Your task to perform on an android device: turn on javascript in the chrome app Image 0: 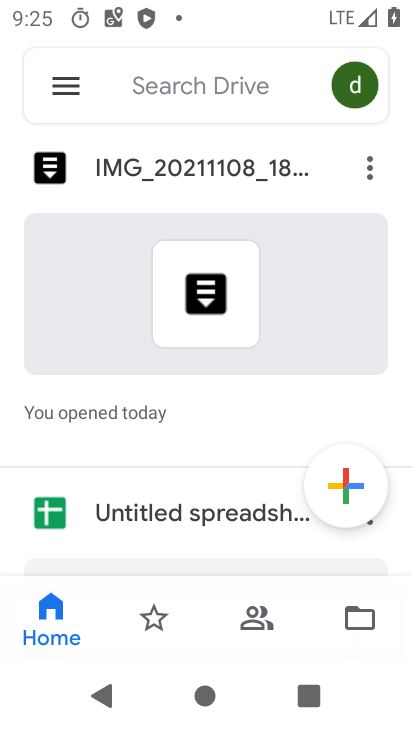
Step 0: press home button
Your task to perform on an android device: turn on javascript in the chrome app Image 1: 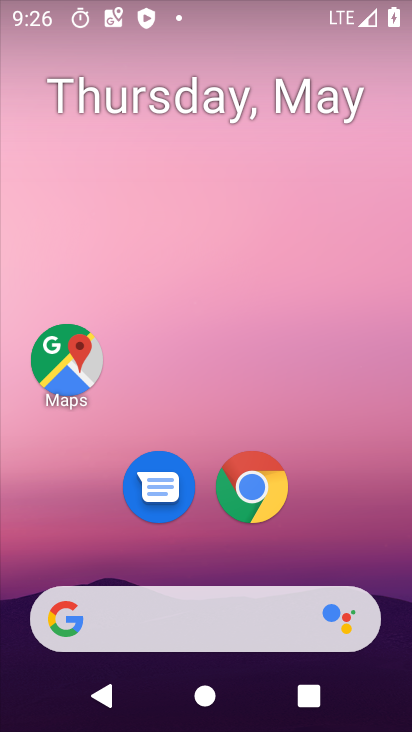
Step 1: drag from (159, 598) to (263, 140)
Your task to perform on an android device: turn on javascript in the chrome app Image 2: 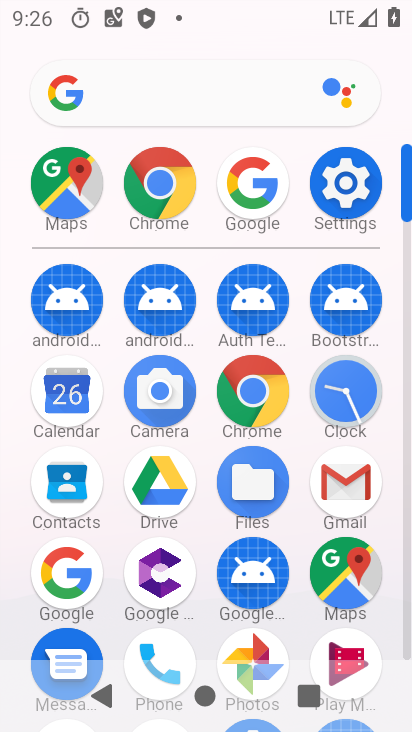
Step 2: click (164, 195)
Your task to perform on an android device: turn on javascript in the chrome app Image 3: 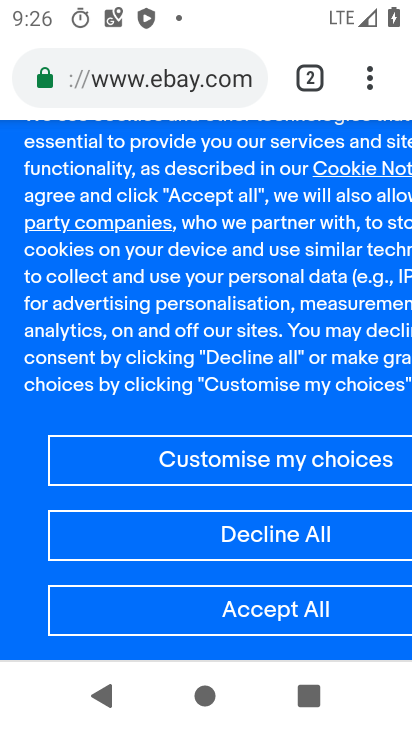
Step 3: click (378, 77)
Your task to perform on an android device: turn on javascript in the chrome app Image 4: 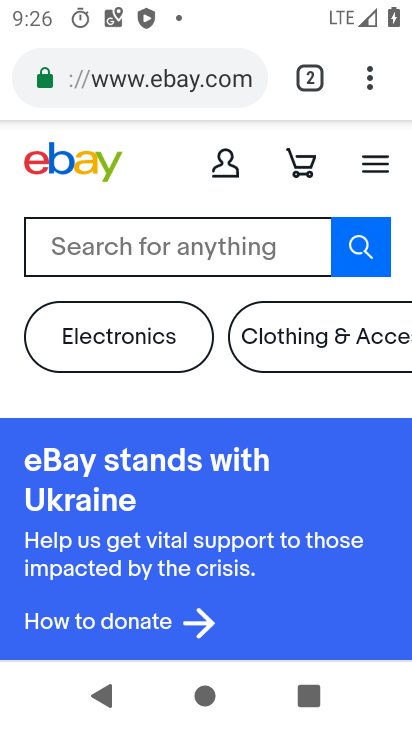
Step 4: click (378, 74)
Your task to perform on an android device: turn on javascript in the chrome app Image 5: 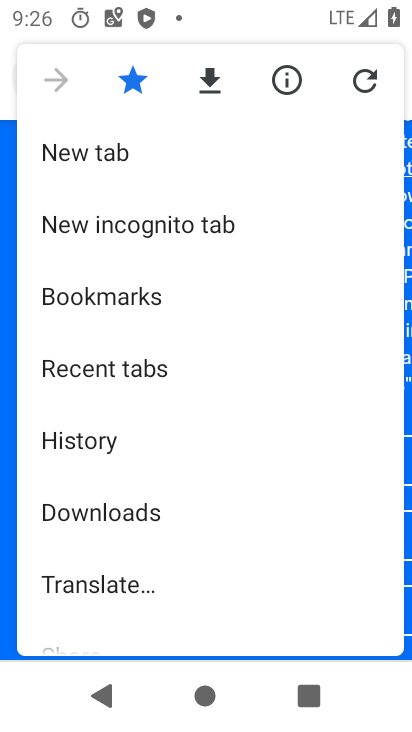
Step 5: drag from (210, 538) to (219, 308)
Your task to perform on an android device: turn on javascript in the chrome app Image 6: 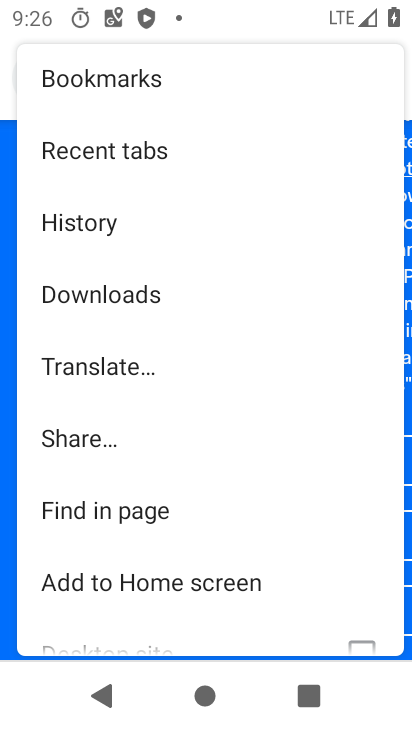
Step 6: drag from (205, 482) to (207, 280)
Your task to perform on an android device: turn on javascript in the chrome app Image 7: 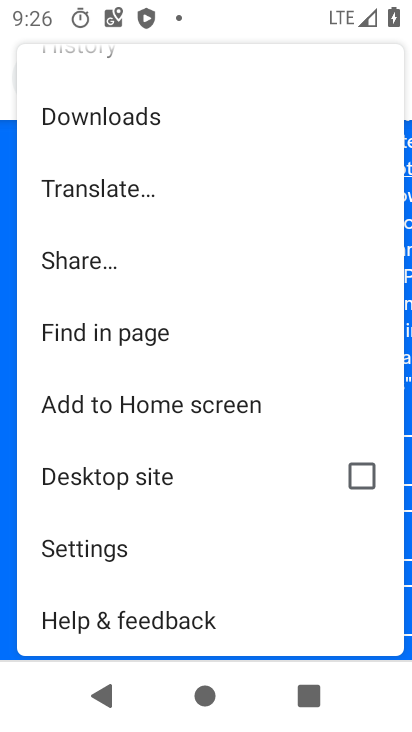
Step 7: click (124, 562)
Your task to perform on an android device: turn on javascript in the chrome app Image 8: 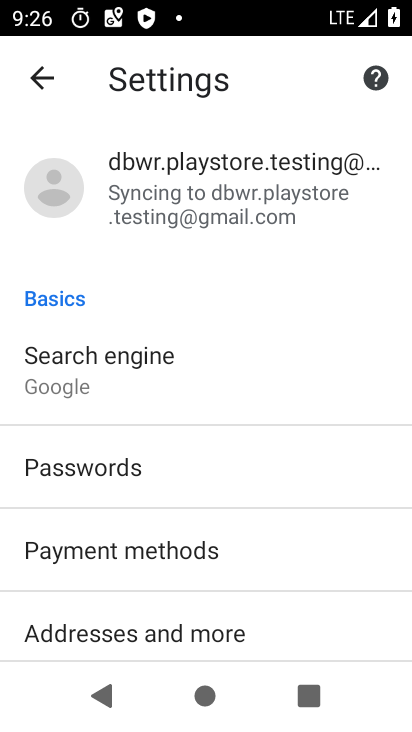
Step 8: drag from (216, 568) to (271, 151)
Your task to perform on an android device: turn on javascript in the chrome app Image 9: 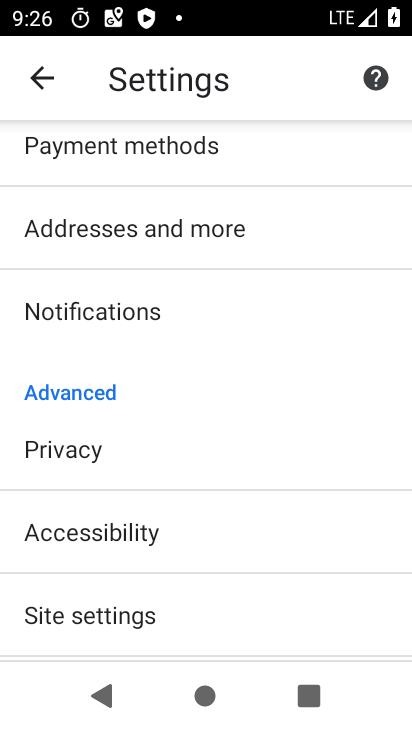
Step 9: drag from (144, 561) to (205, 292)
Your task to perform on an android device: turn on javascript in the chrome app Image 10: 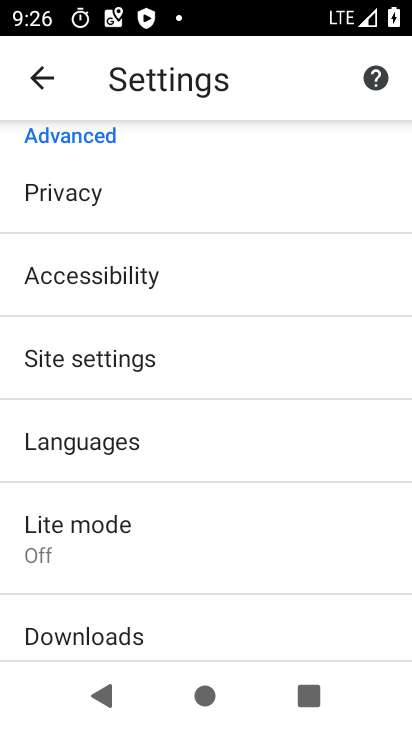
Step 10: click (107, 367)
Your task to perform on an android device: turn on javascript in the chrome app Image 11: 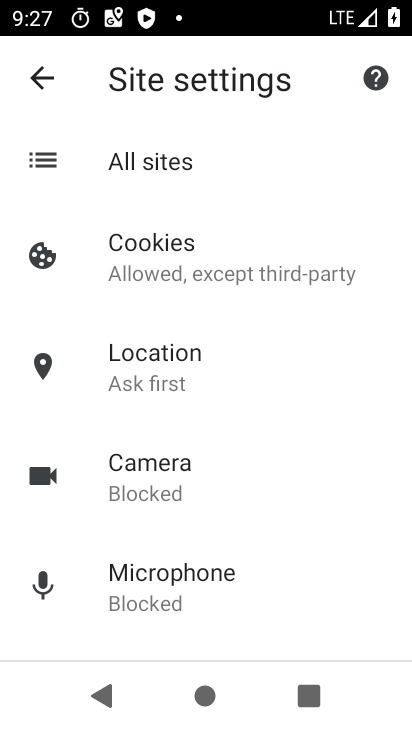
Step 11: drag from (218, 469) to (279, 86)
Your task to perform on an android device: turn on javascript in the chrome app Image 12: 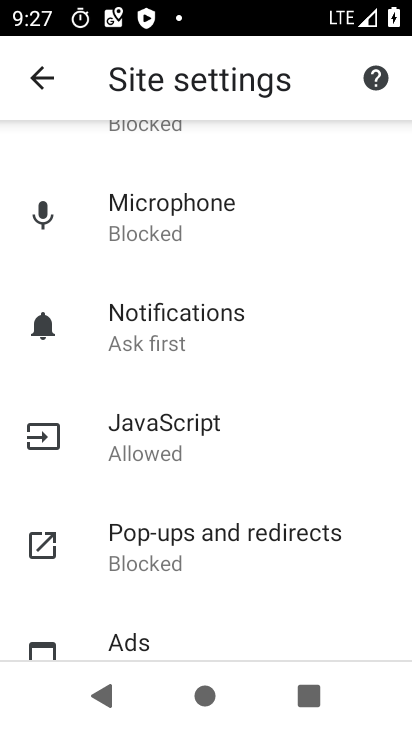
Step 12: click (228, 427)
Your task to perform on an android device: turn on javascript in the chrome app Image 13: 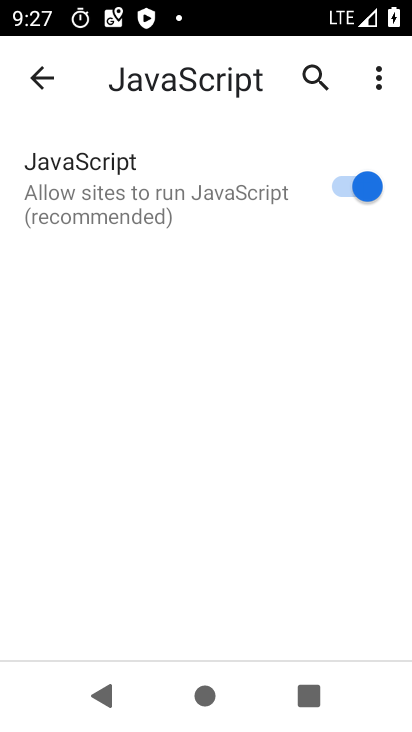
Step 13: task complete